Your task to perform on an android device: turn off javascript in the chrome app Image 0: 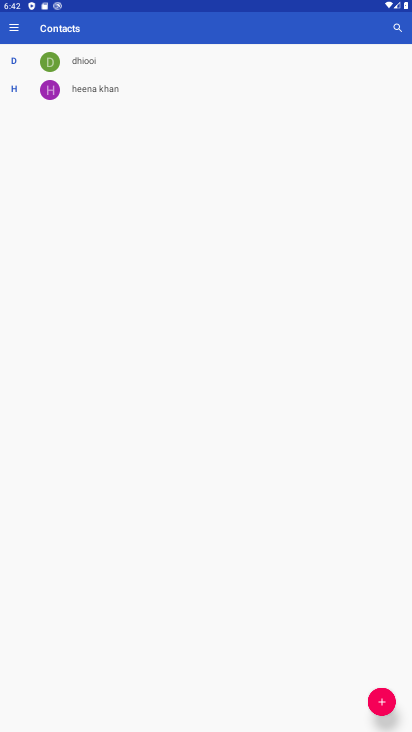
Step 0: press home button
Your task to perform on an android device: turn off javascript in the chrome app Image 1: 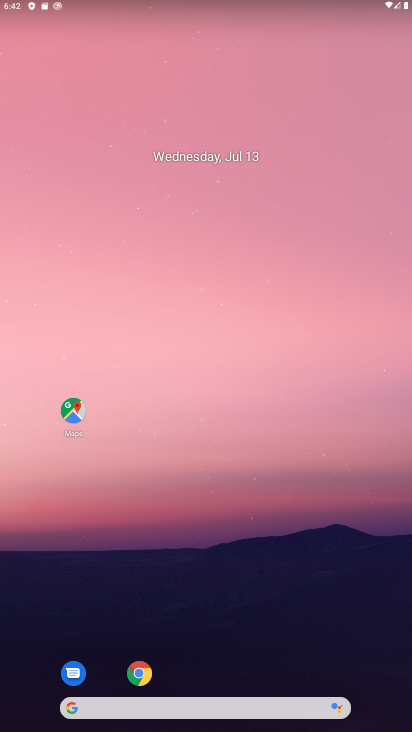
Step 1: drag from (258, 504) to (261, 4)
Your task to perform on an android device: turn off javascript in the chrome app Image 2: 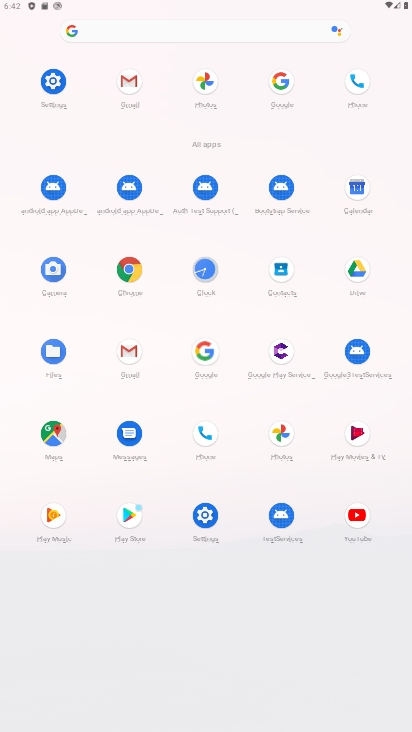
Step 2: click (127, 276)
Your task to perform on an android device: turn off javascript in the chrome app Image 3: 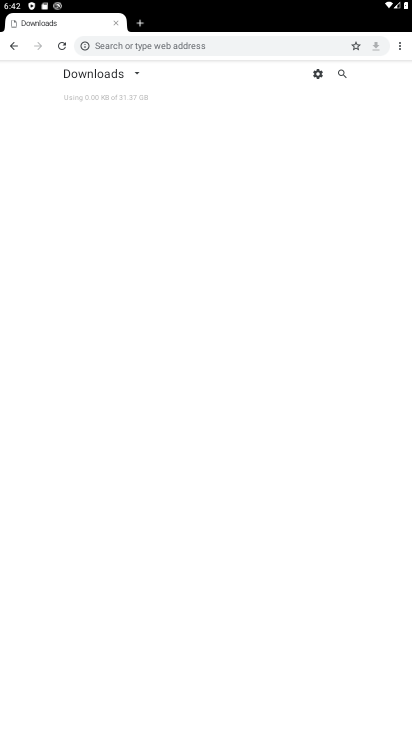
Step 3: drag from (402, 48) to (319, 216)
Your task to perform on an android device: turn off javascript in the chrome app Image 4: 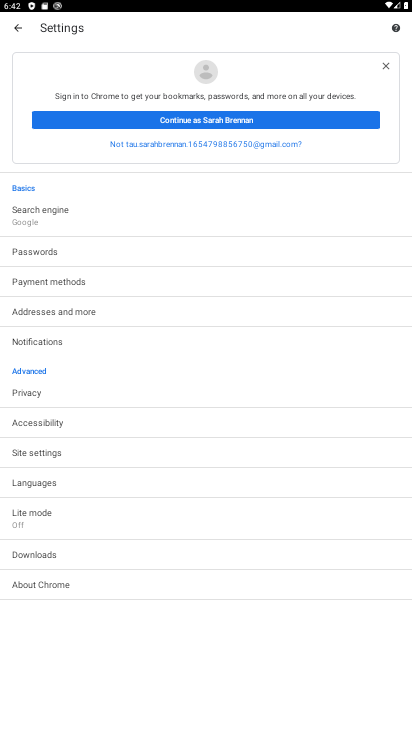
Step 4: click (64, 457)
Your task to perform on an android device: turn off javascript in the chrome app Image 5: 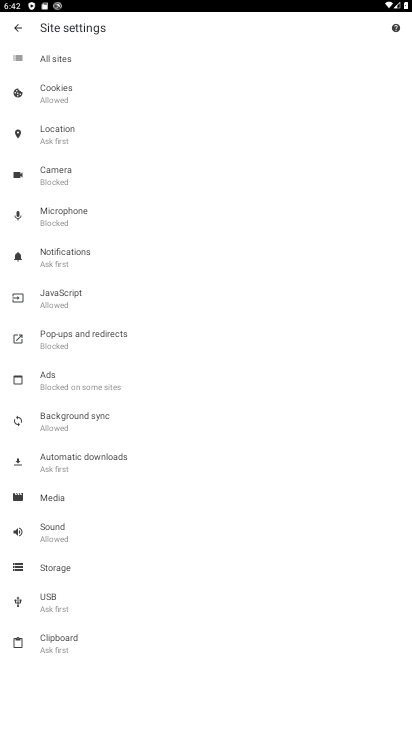
Step 5: click (63, 305)
Your task to perform on an android device: turn off javascript in the chrome app Image 6: 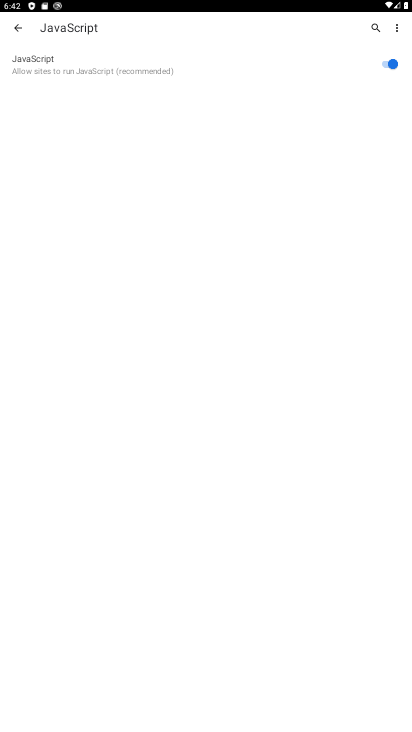
Step 6: click (388, 61)
Your task to perform on an android device: turn off javascript in the chrome app Image 7: 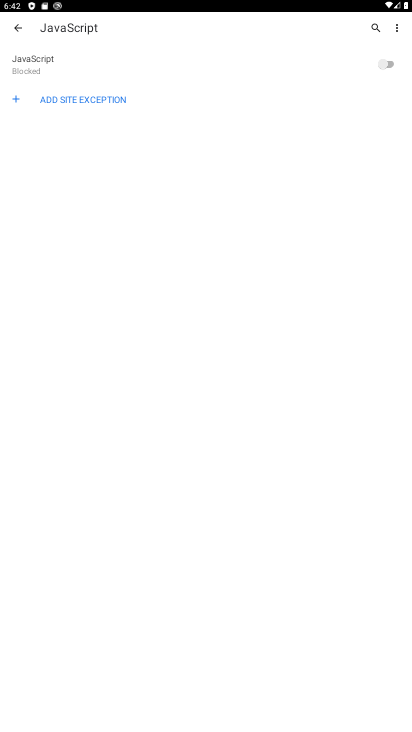
Step 7: task complete